Your task to perform on an android device: Empty the shopping cart on costco.com. Search for "logitech g933" on costco.com, select the first entry, and add it to the cart. Image 0: 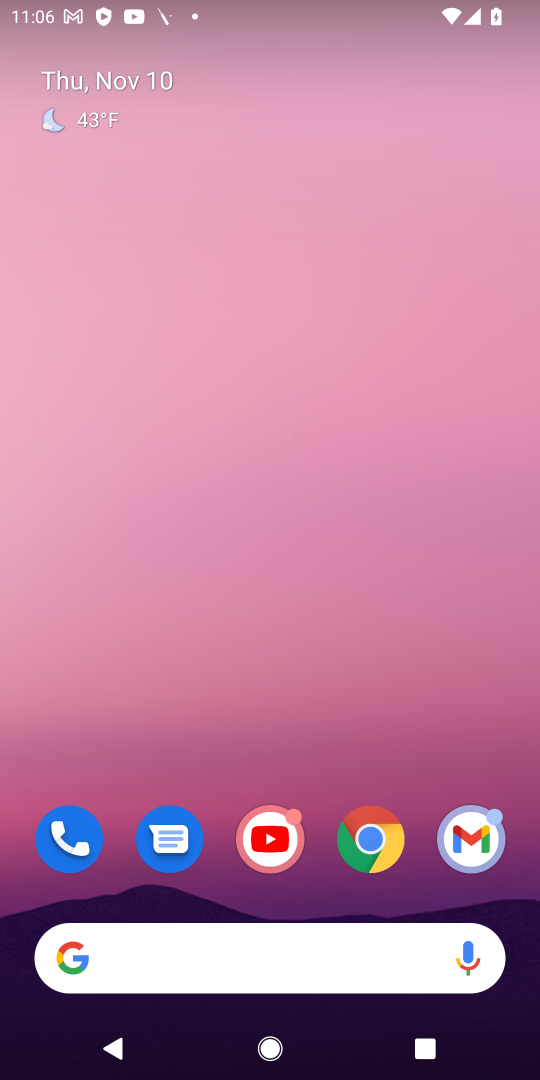
Step 0: click (379, 846)
Your task to perform on an android device: Empty the shopping cart on costco.com. Search for "logitech g933" on costco.com, select the first entry, and add it to the cart. Image 1: 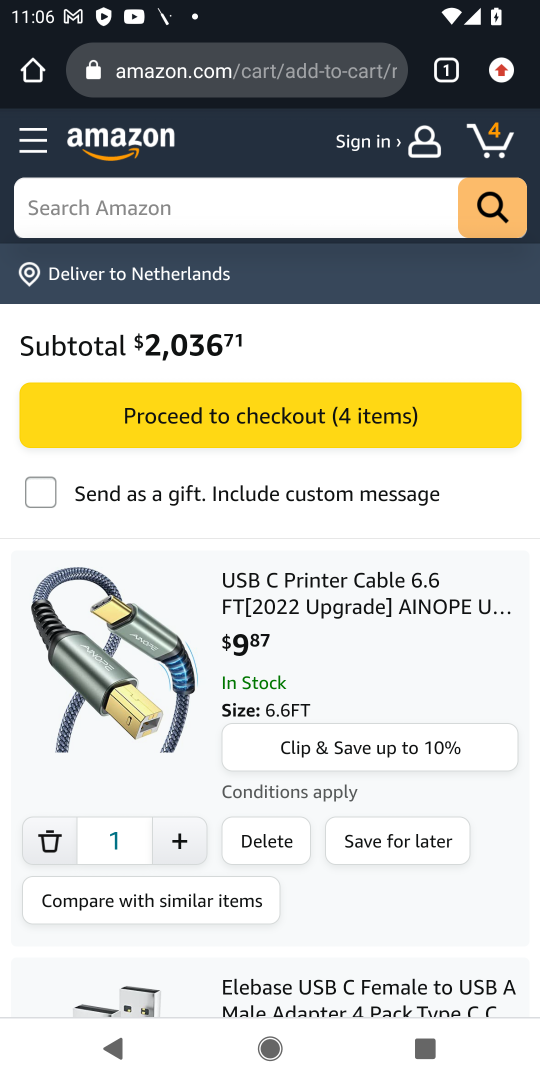
Step 1: click (200, 65)
Your task to perform on an android device: Empty the shopping cart on costco.com. Search for "logitech g933" on costco.com, select the first entry, and add it to the cart. Image 2: 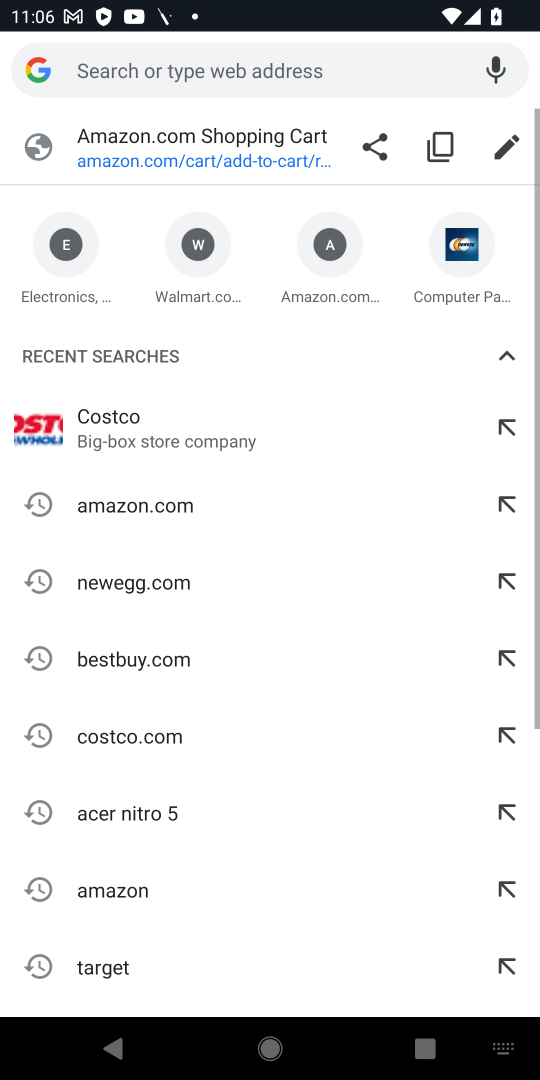
Step 2: click (159, 436)
Your task to perform on an android device: Empty the shopping cart on costco.com. Search for "logitech g933" on costco.com, select the first entry, and add it to the cart. Image 3: 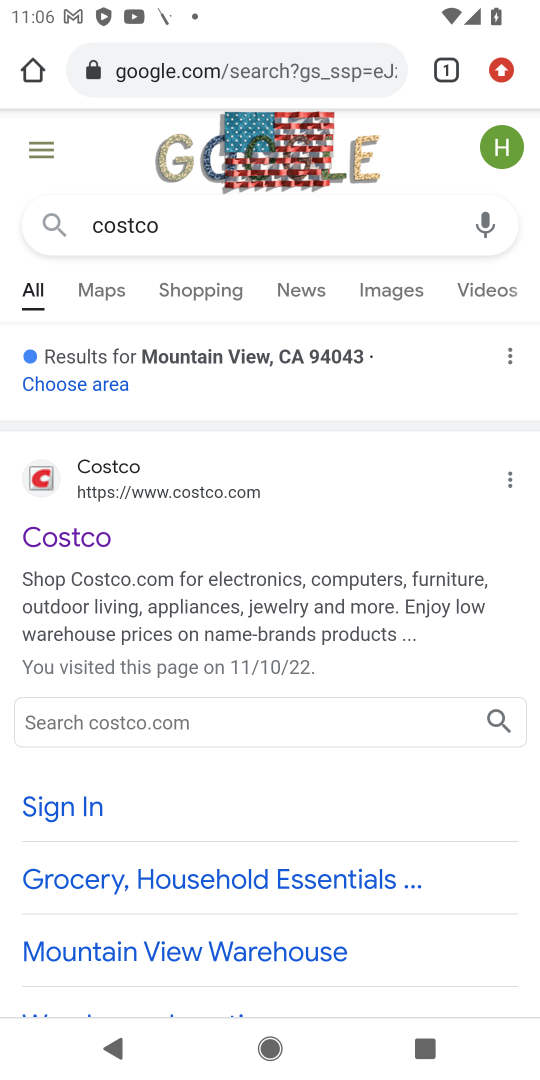
Step 3: click (207, 481)
Your task to perform on an android device: Empty the shopping cart on costco.com. Search for "logitech g933" on costco.com, select the first entry, and add it to the cart. Image 4: 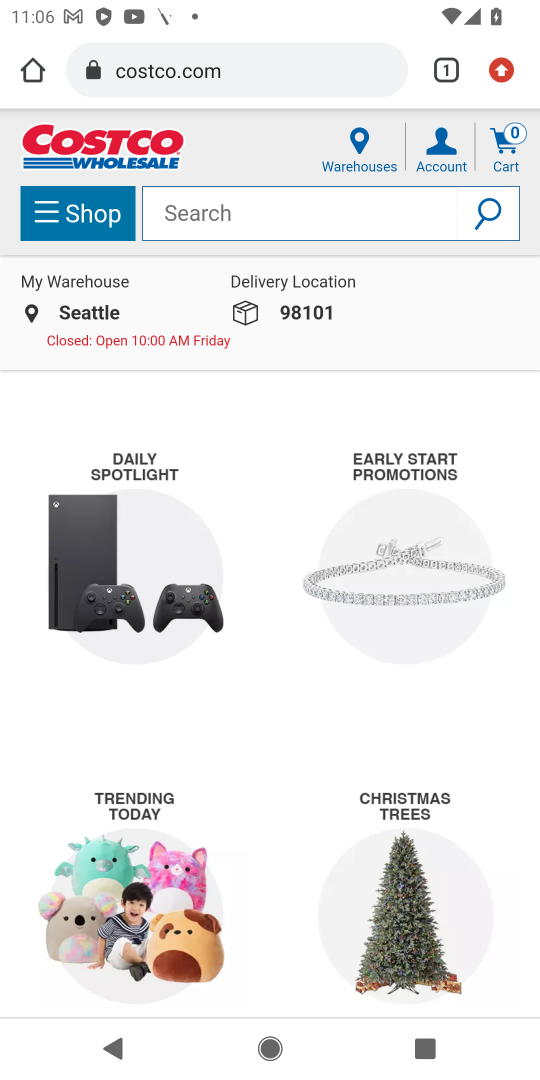
Step 4: click (267, 213)
Your task to perform on an android device: Empty the shopping cart on costco.com. Search for "logitech g933" on costco.com, select the first entry, and add it to the cart. Image 5: 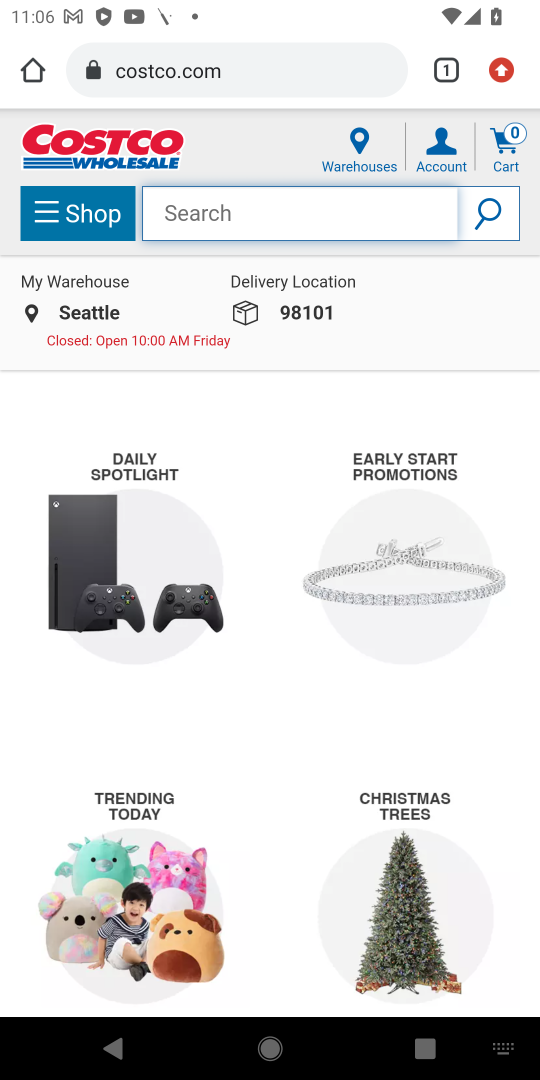
Step 5: type "logitech g933"
Your task to perform on an android device: Empty the shopping cart on costco.com. Search for "logitech g933" on costco.com, select the first entry, and add it to the cart. Image 6: 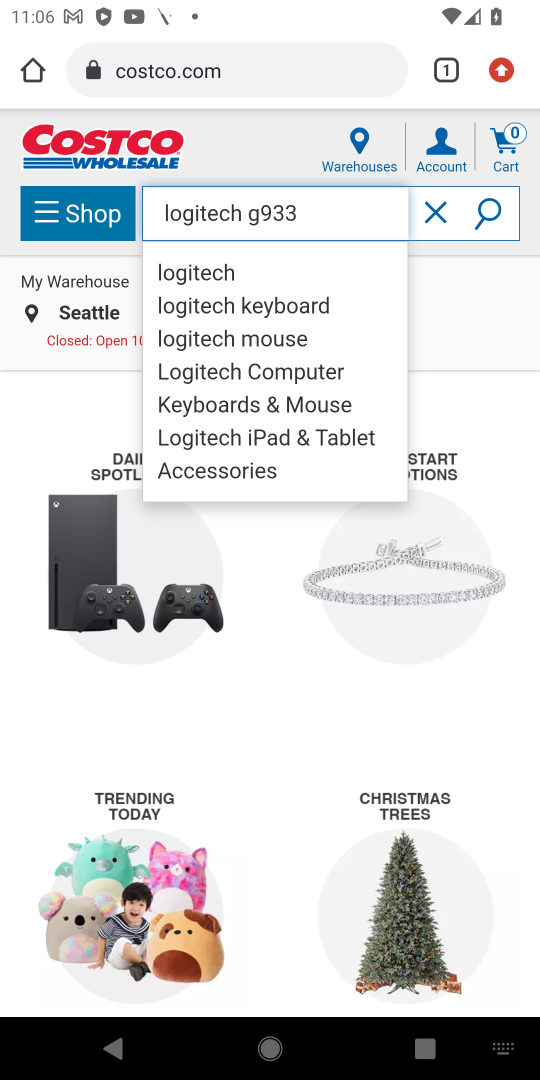
Step 6: click (507, 289)
Your task to perform on an android device: Empty the shopping cart on costco.com. Search for "logitech g933" on costco.com, select the first entry, and add it to the cart. Image 7: 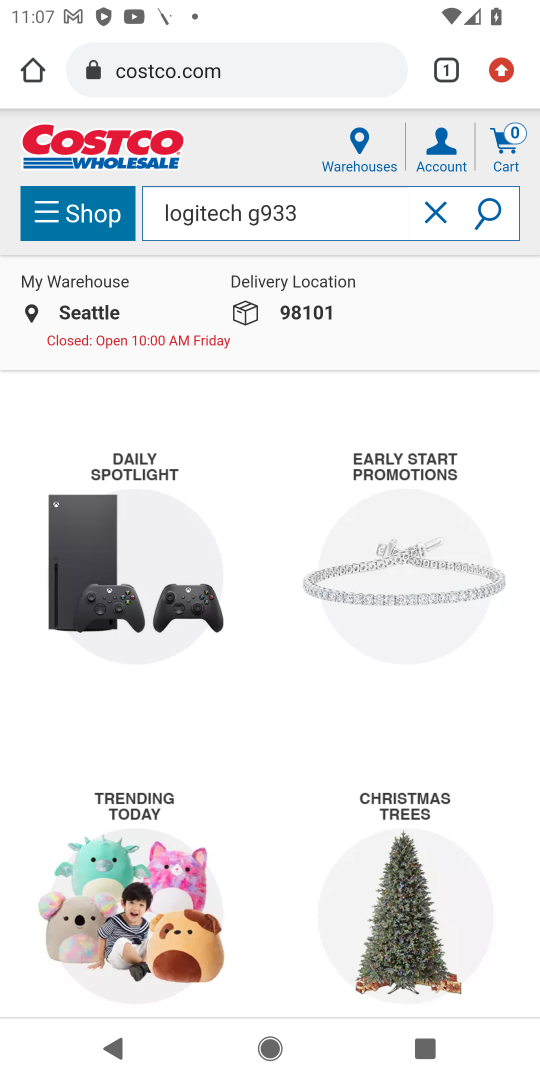
Step 7: click (439, 306)
Your task to perform on an android device: Empty the shopping cart on costco.com. Search for "logitech g933" on costco.com, select the first entry, and add it to the cart. Image 8: 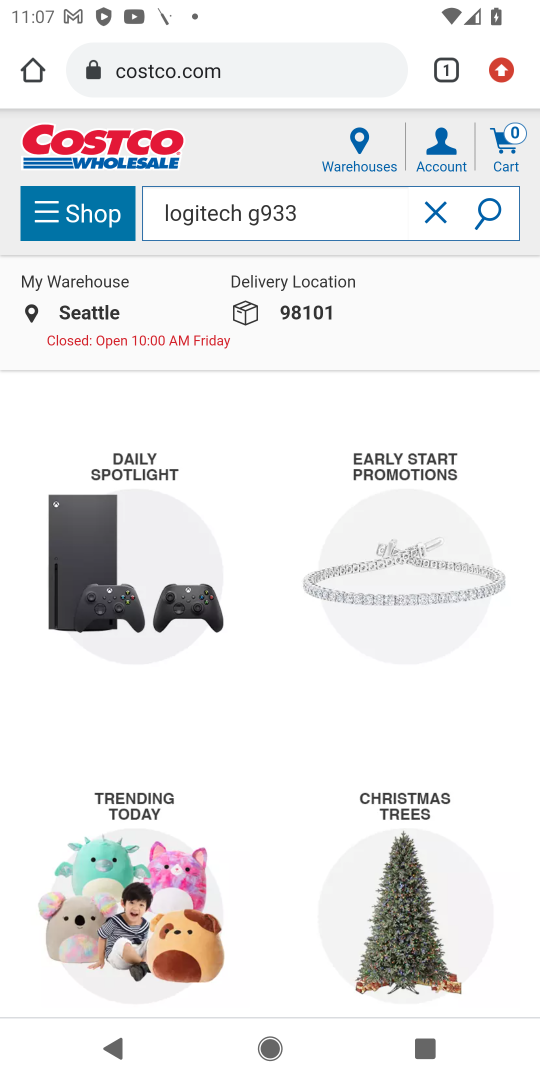
Step 8: click (492, 213)
Your task to perform on an android device: Empty the shopping cart on costco.com. Search for "logitech g933" on costco.com, select the first entry, and add it to the cart. Image 9: 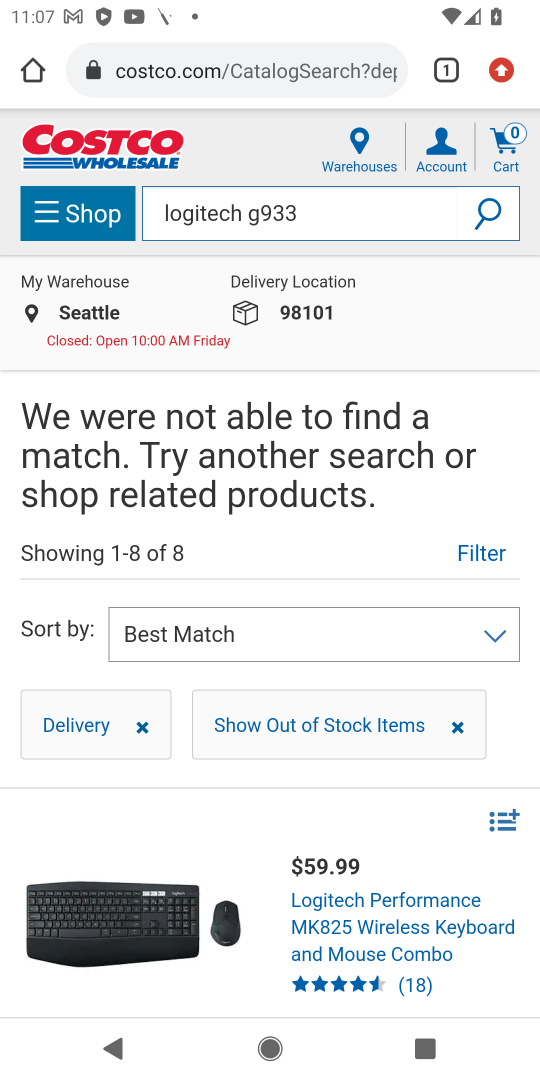
Step 9: task complete